Your task to perform on an android device: Open Yahoo.com Image 0: 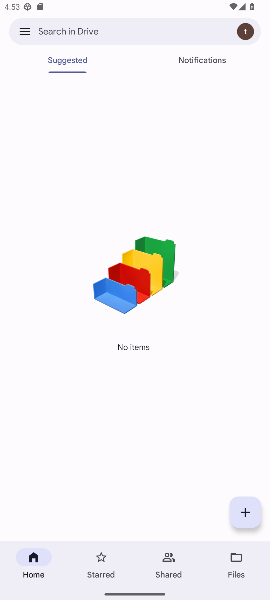
Step 0: press home button
Your task to perform on an android device: Open Yahoo.com Image 1: 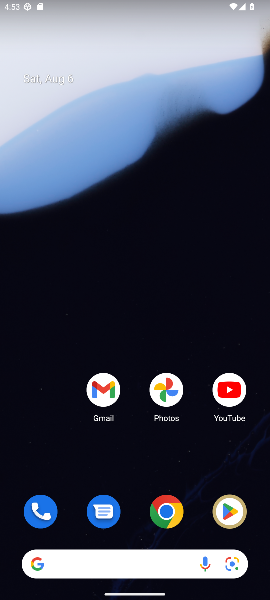
Step 1: click (177, 515)
Your task to perform on an android device: Open Yahoo.com Image 2: 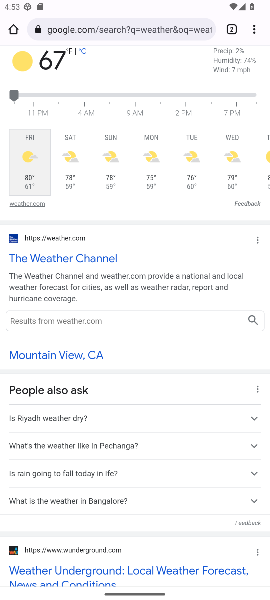
Step 2: click (119, 23)
Your task to perform on an android device: Open Yahoo.com Image 3: 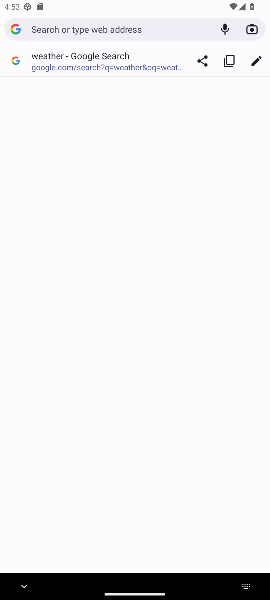
Step 3: type "yahoo.com"
Your task to perform on an android device: Open Yahoo.com Image 4: 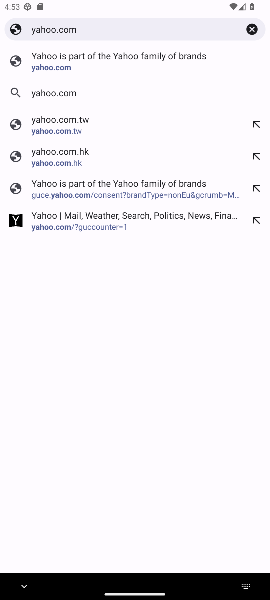
Step 4: click (110, 64)
Your task to perform on an android device: Open Yahoo.com Image 5: 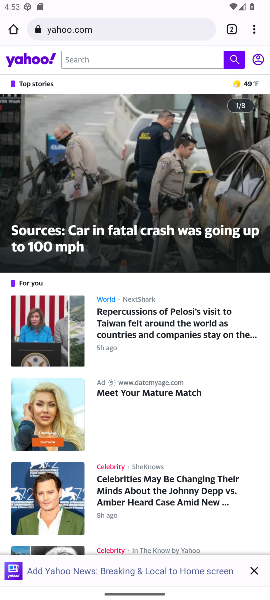
Step 5: task complete